Your task to perform on an android device: set default search engine in the chrome app Image 0: 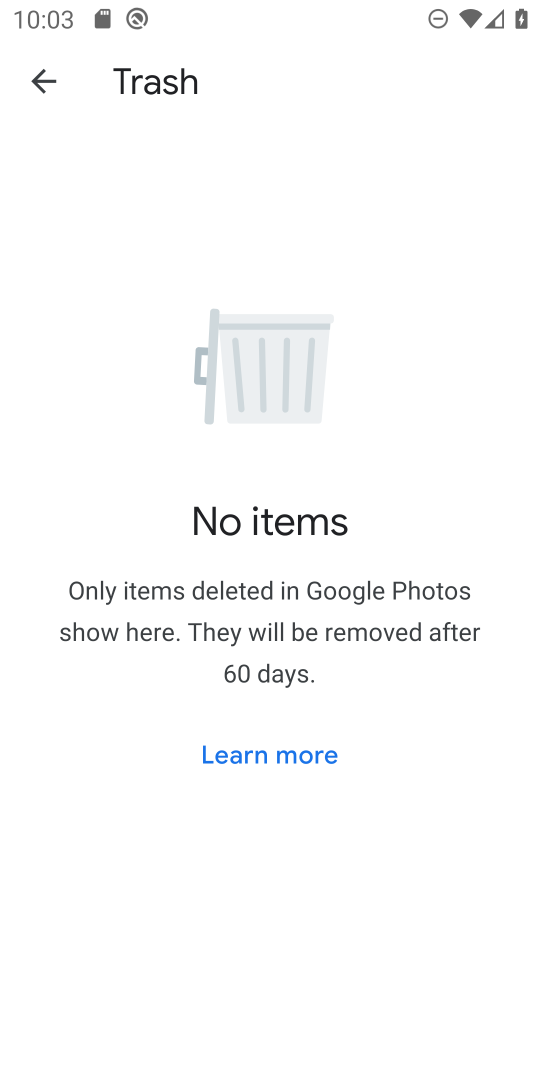
Step 0: press home button
Your task to perform on an android device: set default search engine in the chrome app Image 1: 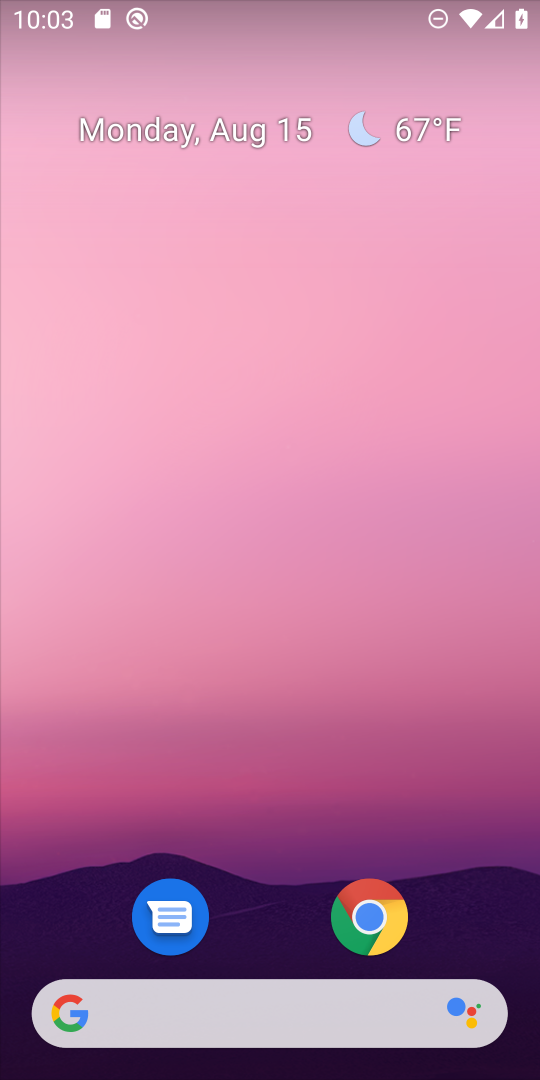
Step 1: click (367, 925)
Your task to perform on an android device: set default search engine in the chrome app Image 2: 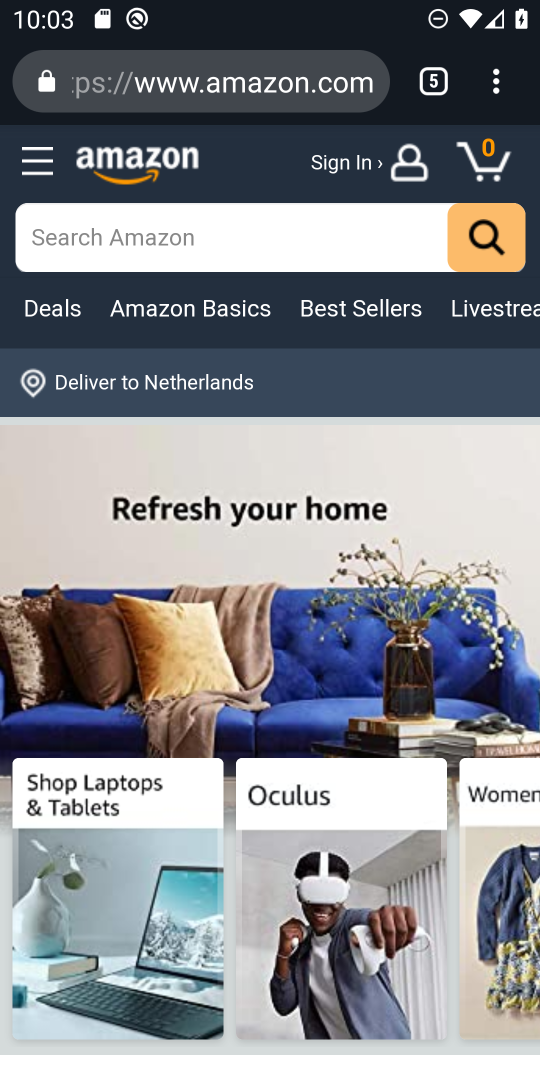
Step 2: click (498, 88)
Your task to perform on an android device: set default search engine in the chrome app Image 3: 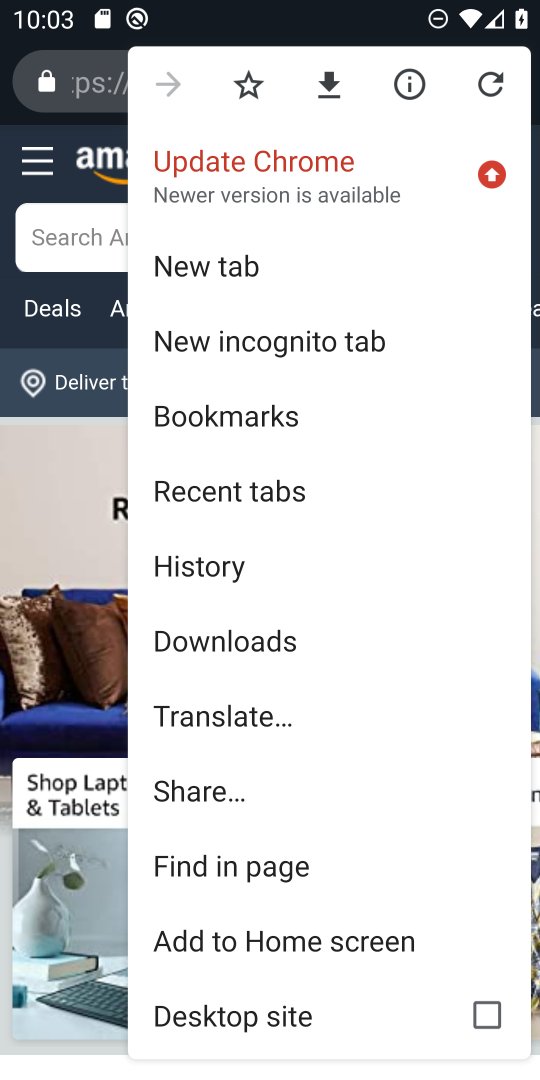
Step 3: click (343, 466)
Your task to perform on an android device: set default search engine in the chrome app Image 4: 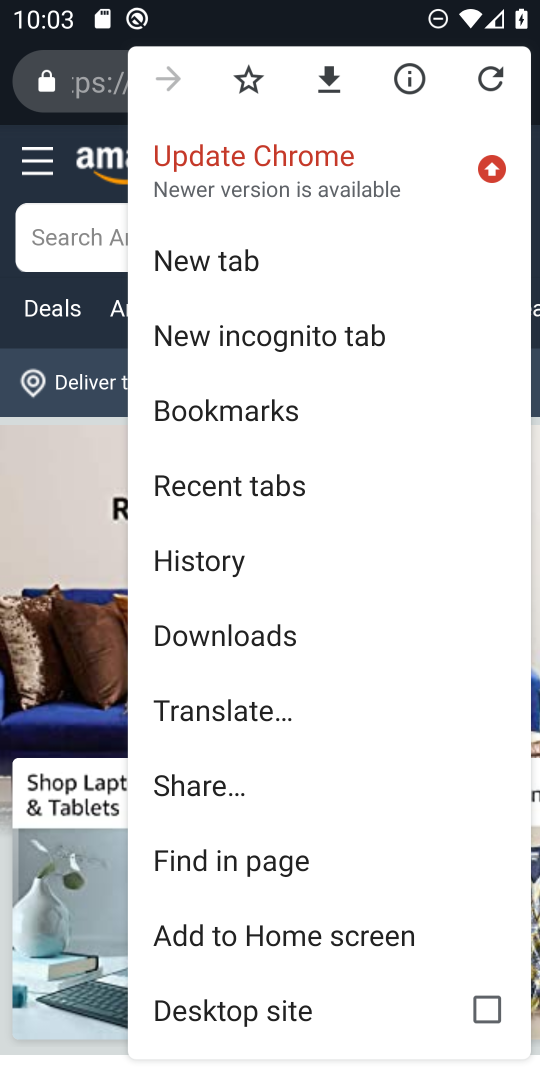
Step 4: drag from (307, 786) to (320, 383)
Your task to perform on an android device: set default search engine in the chrome app Image 5: 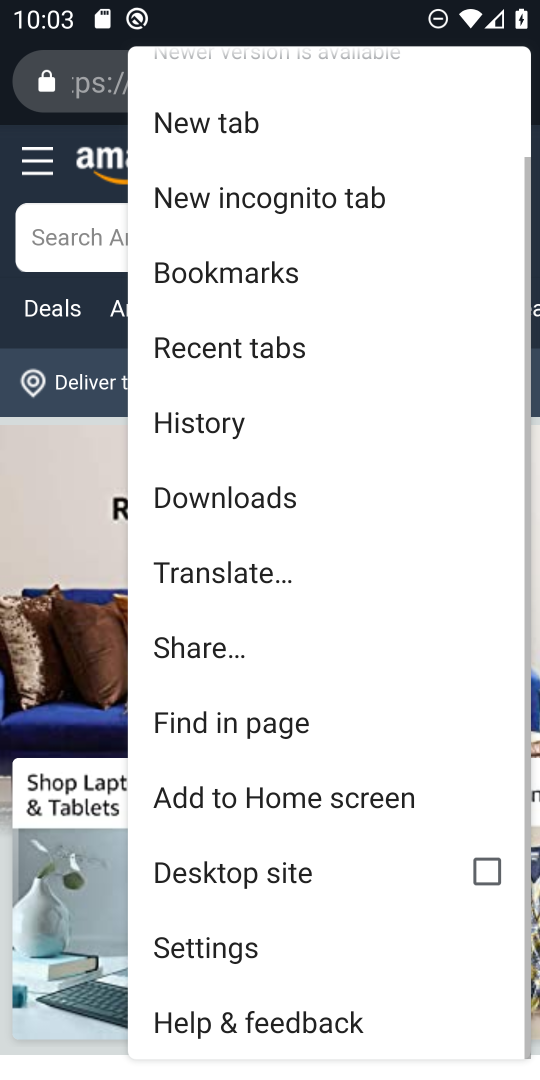
Step 5: click (359, 436)
Your task to perform on an android device: set default search engine in the chrome app Image 6: 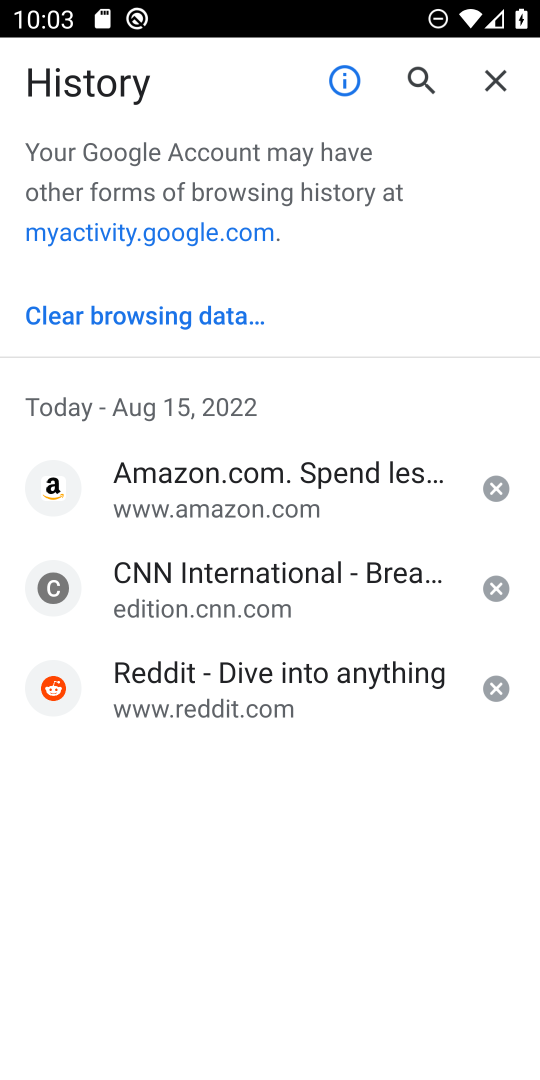
Step 6: press back button
Your task to perform on an android device: set default search engine in the chrome app Image 7: 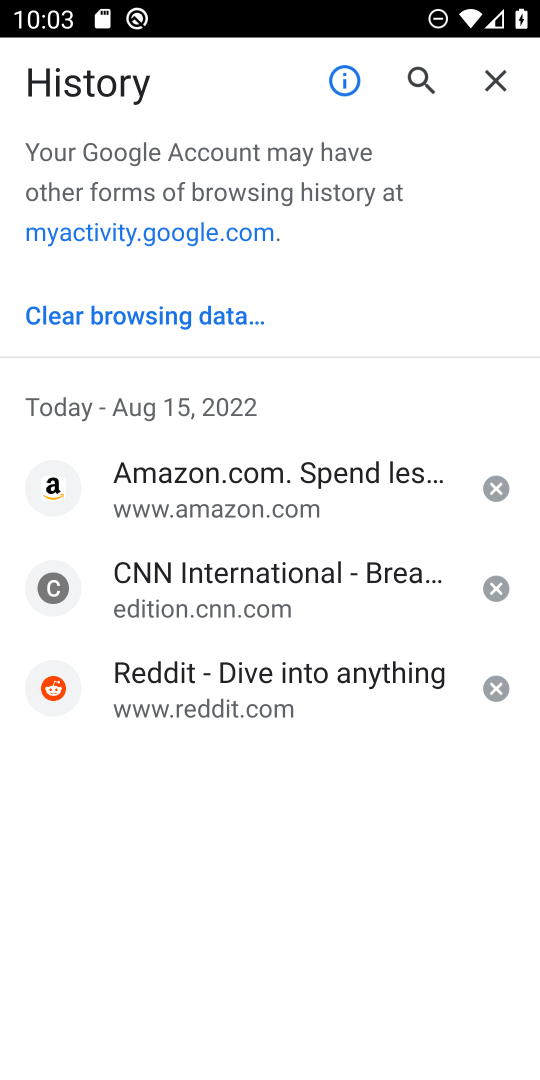
Step 7: press back button
Your task to perform on an android device: set default search engine in the chrome app Image 8: 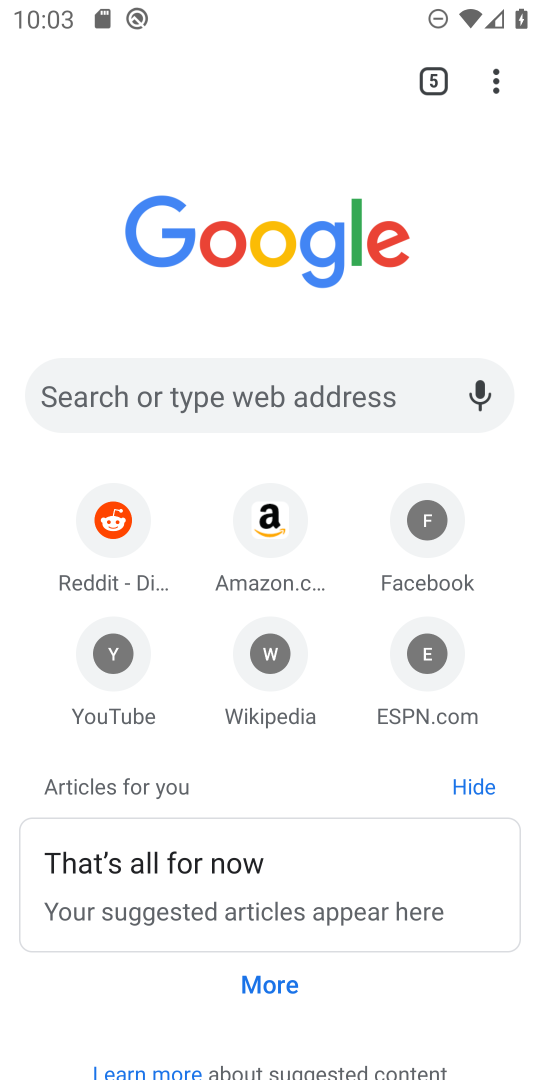
Step 8: press back button
Your task to perform on an android device: set default search engine in the chrome app Image 9: 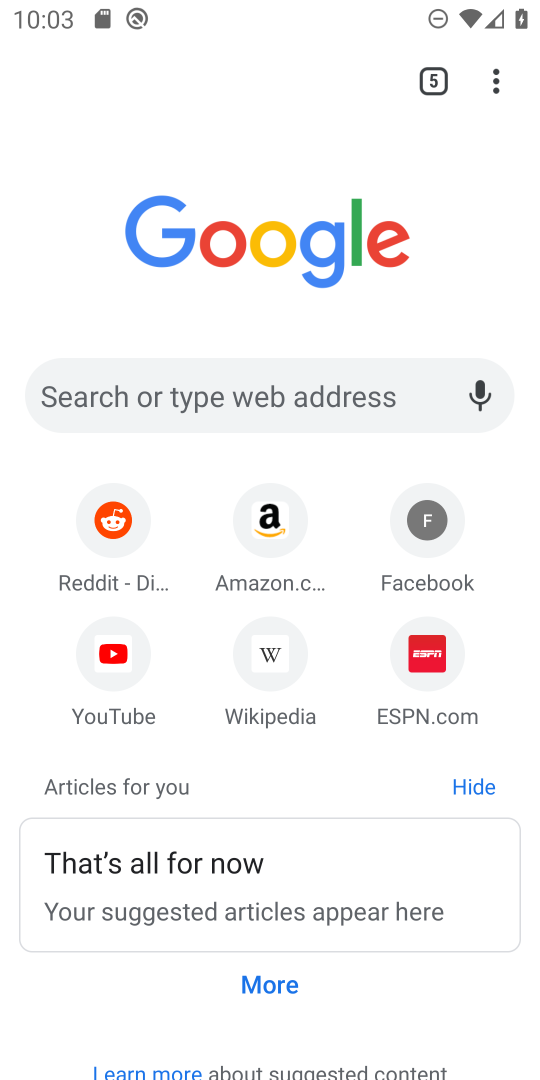
Step 9: press back button
Your task to perform on an android device: set default search engine in the chrome app Image 10: 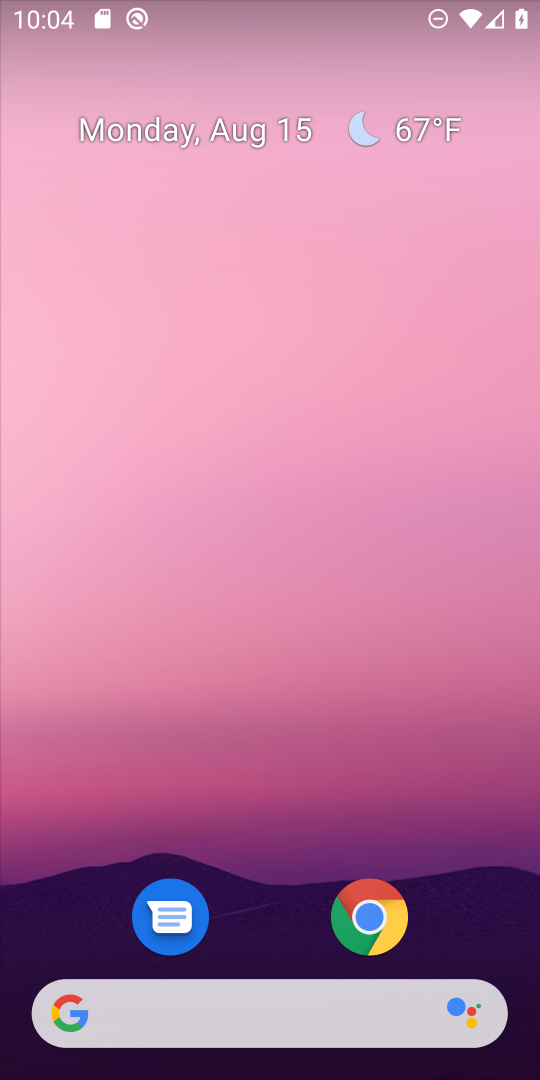
Step 10: click (378, 899)
Your task to perform on an android device: set default search engine in the chrome app Image 11: 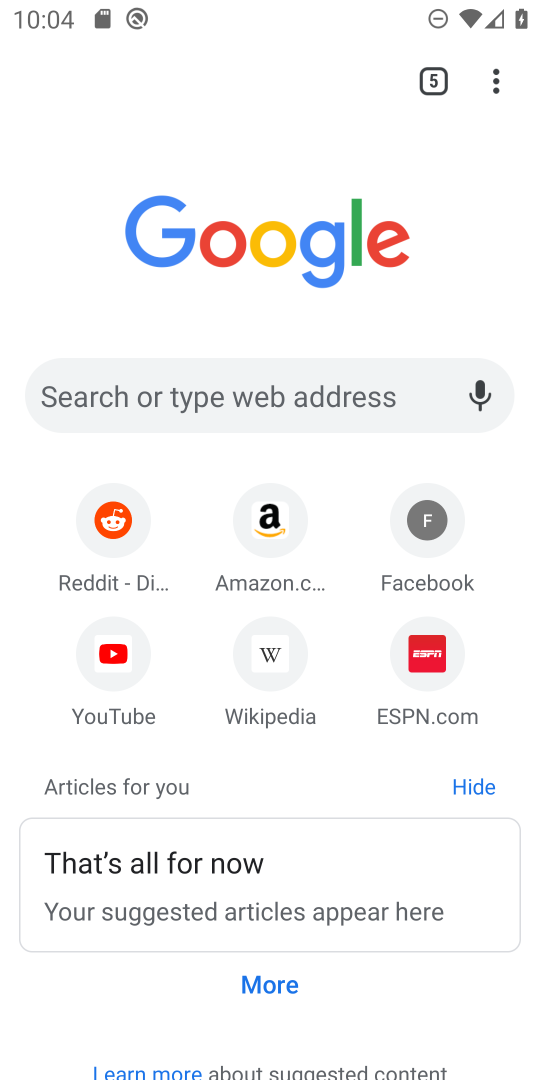
Step 11: click (493, 75)
Your task to perform on an android device: set default search engine in the chrome app Image 12: 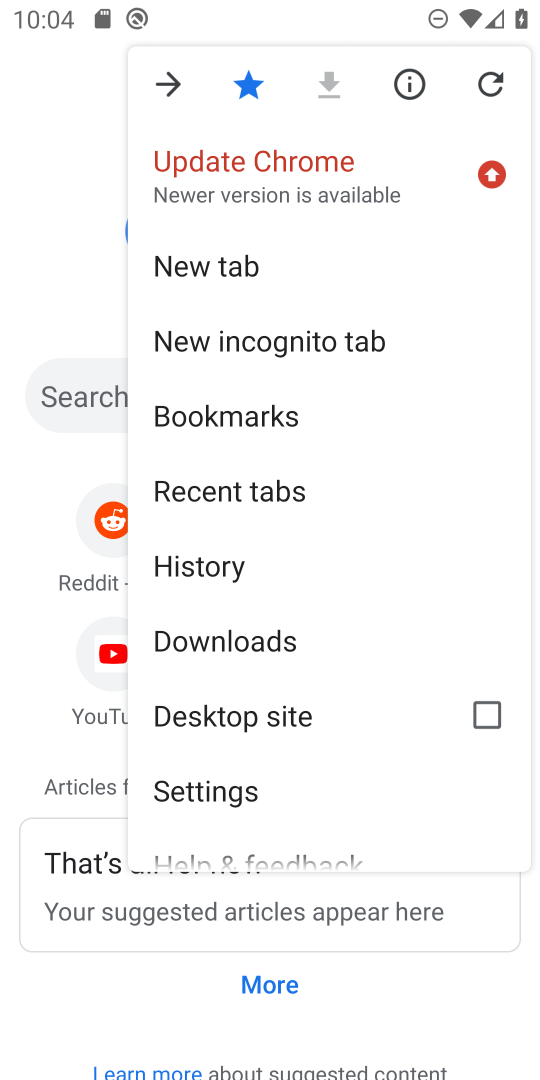
Step 12: click (214, 788)
Your task to perform on an android device: set default search engine in the chrome app Image 13: 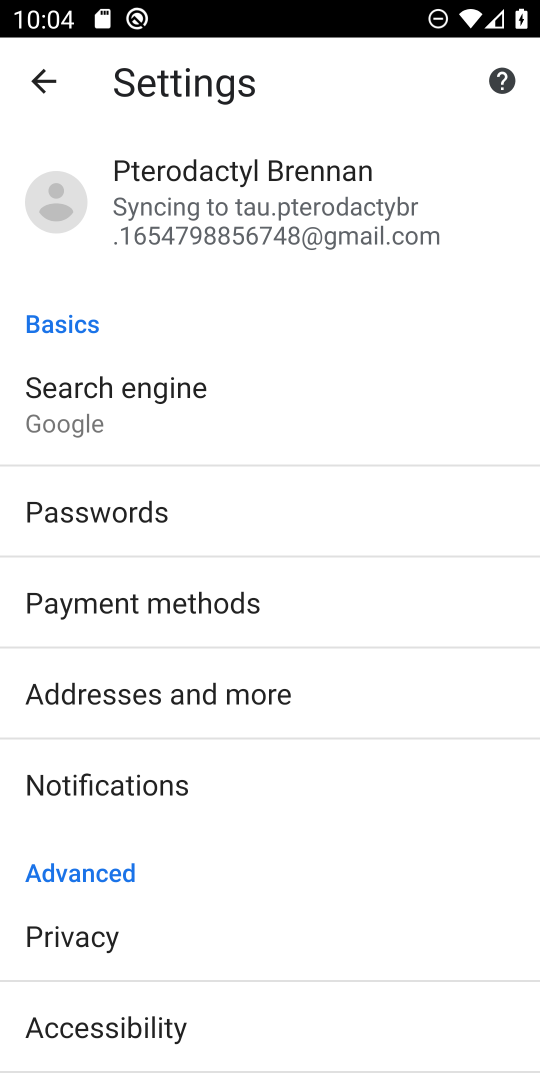
Step 13: click (171, 395)
Your task to perform on an android device: set default search engine in the chrome app Image 14: 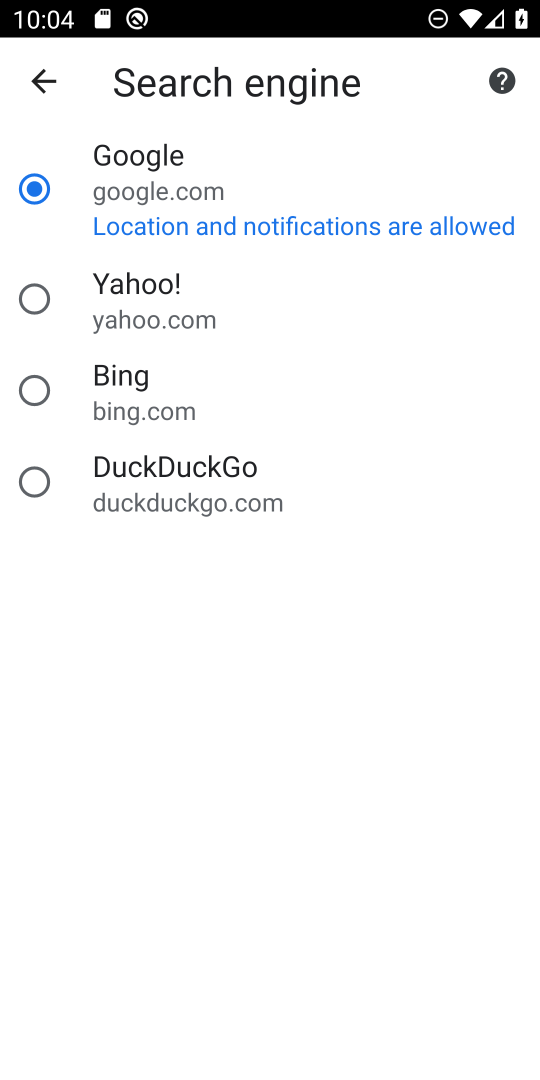
Step 14: task complete